Your task to perform on an android device: Open Google Chrome and click the shortcut for Amazon.com Image 0: 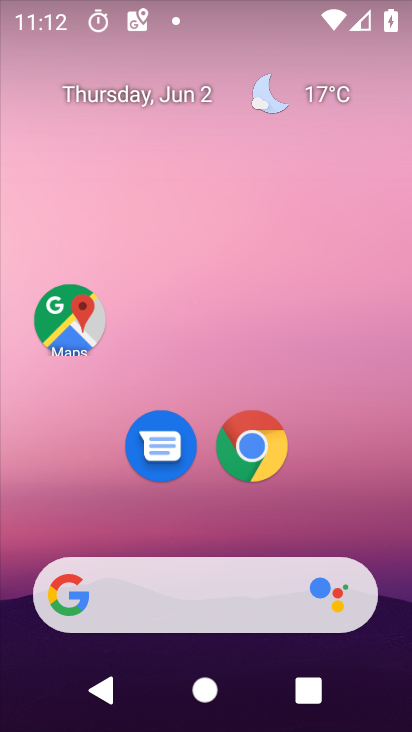
Step 0: drag from (386, 517) to (376, 240)
Your task to perform on an android device: Open Google Chrome and click the shortcut for Amazon.com Image 1: 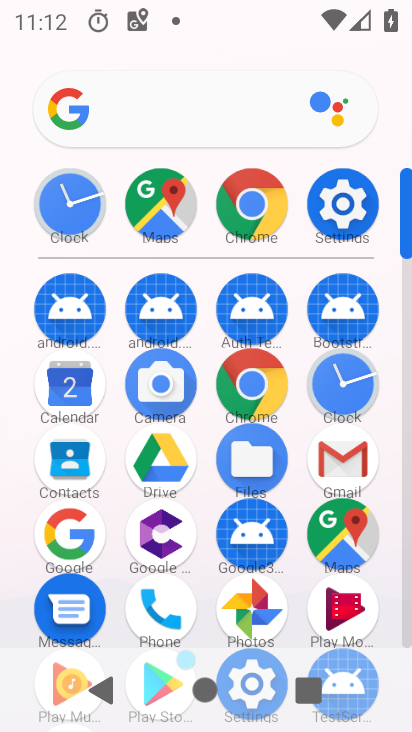
Step 1: click (274, 390)
Your task to perform on an android device: Open Google Chrome and click the shortcut for Amazon.com Image 2: 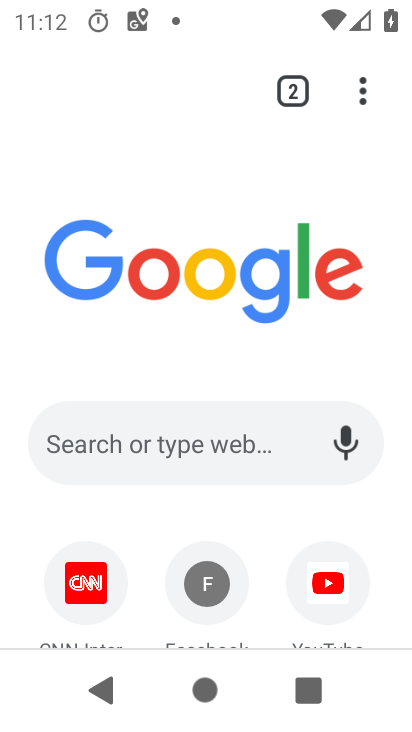
Step 2: drag from (274, 476) to (283, 353)
Your task to perform on an android device: Open Google Chrome and click the shortcut for Amazon.com Image 3: 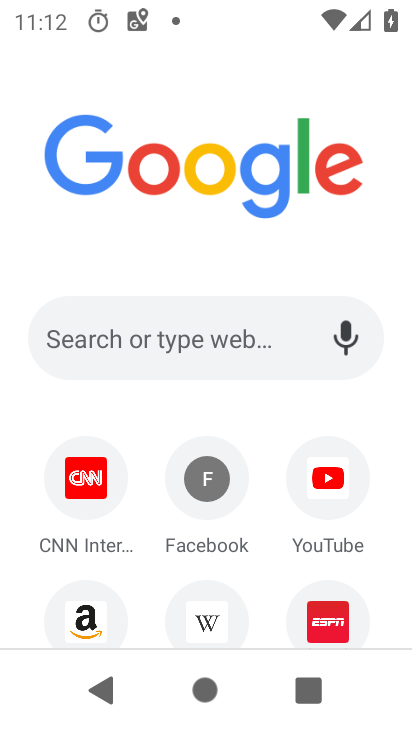
Step 3: drag from (267, 549) to (267, 314)
Your task to perform on an android device: Open Google Chrome and click the shortcut for Amazon.com Image 4: 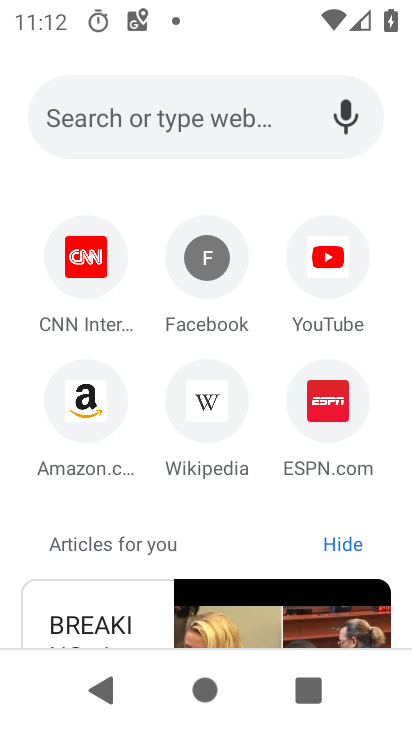
Step 4: click (104, 435)
Your task to perform on an android device: Open Google Chrome and click the shortcut for Amazon.com Image 5: 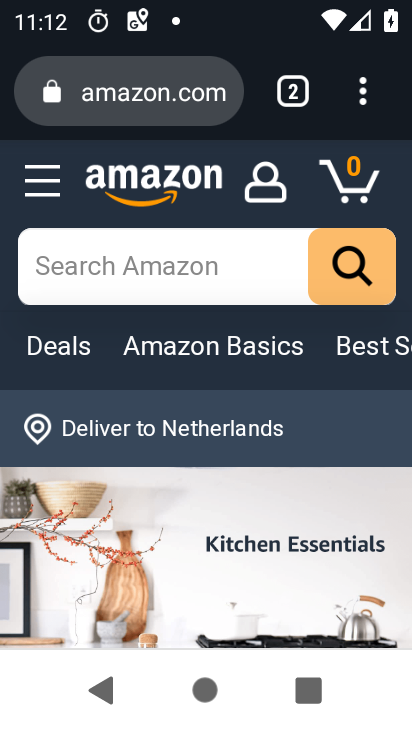
Step 5: task complete